Your task to perform on an android device: Do I have any events this weekend? Image 0: 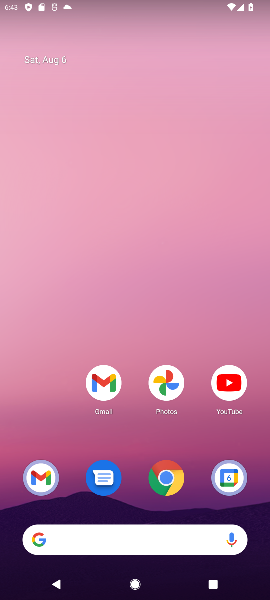
Step 0: press home button
Your task to perform on an android device: Do I have any events this weekend? Image 1: 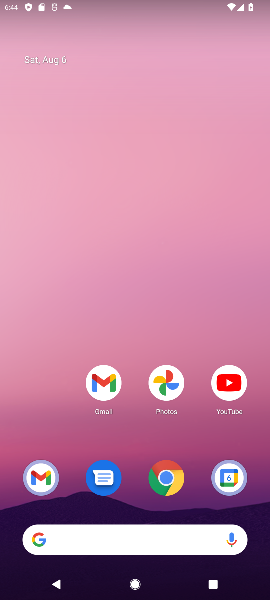
Step 1: drag from (122, 332) to (185, 0)
Your task to perform on an android device: Do I have any events this weekend? Image 2: 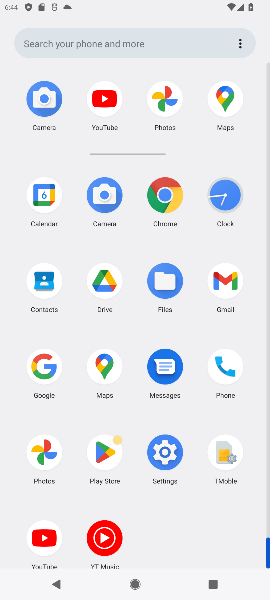
Step 2: click (39, 190)
Your task to perform on an android device: Do I have any events this weekend? Image 3: 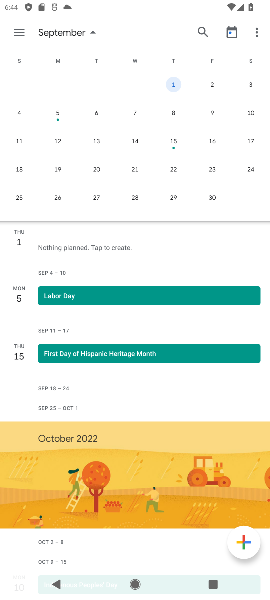
Step 3: drag from (36, 132) to (233, 107)
Your task to perform on an android device: Do I have any events this weekend? Image 4: 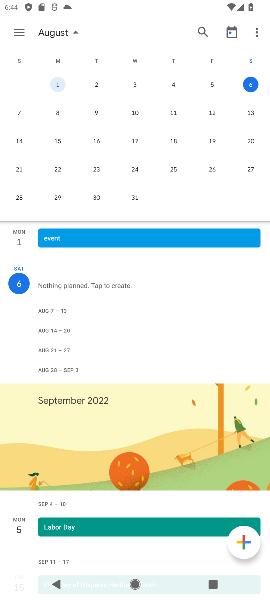
Step 4: click (15, 36)
Your task to perform on an android device: Do I have any events this weekend? Image 5: 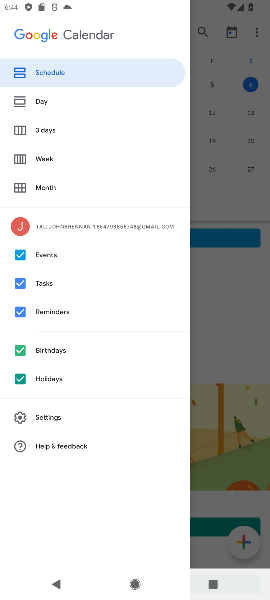
Step 5: click (46, 68)
Your task to perform on an android device: Do I have any events this weekend? Image 6: 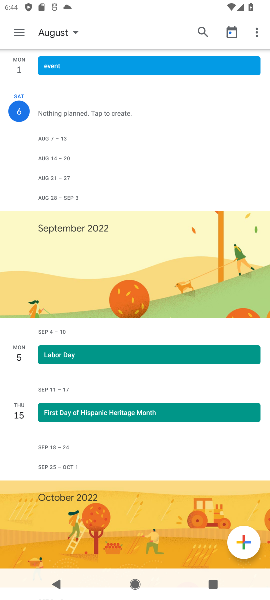
Step 6: task complete